Your task to perform on an android device: Check the weather Image 0: 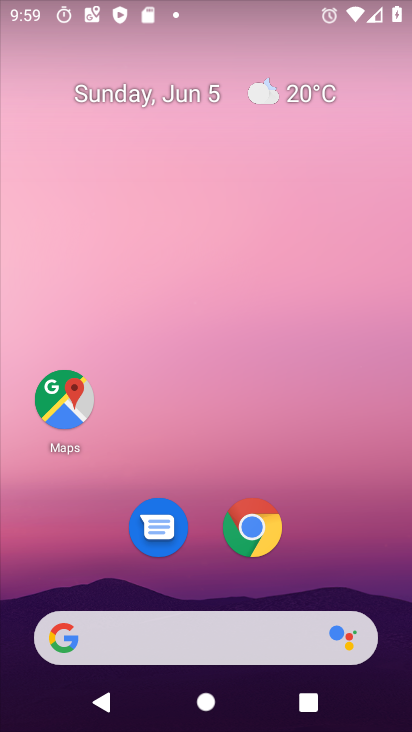
Step 0: drag from (376, 333) to (355, 239)
Your task to perform on an android device: Check the weather Image 1: 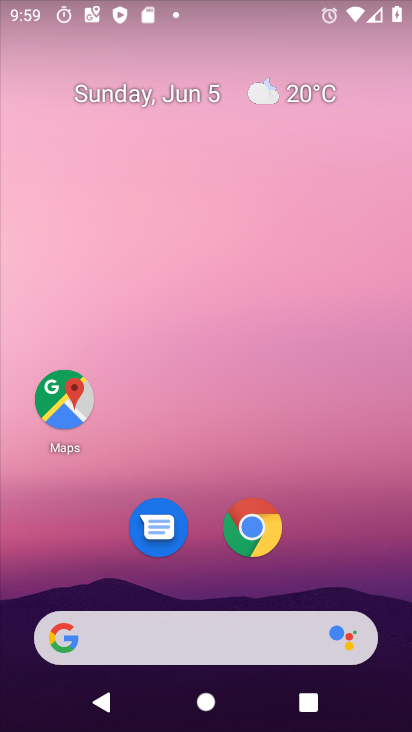
Step 1: drag from (325, 595) to (238, 76)
Your task to perform on an android device: Check the weather Image 2: 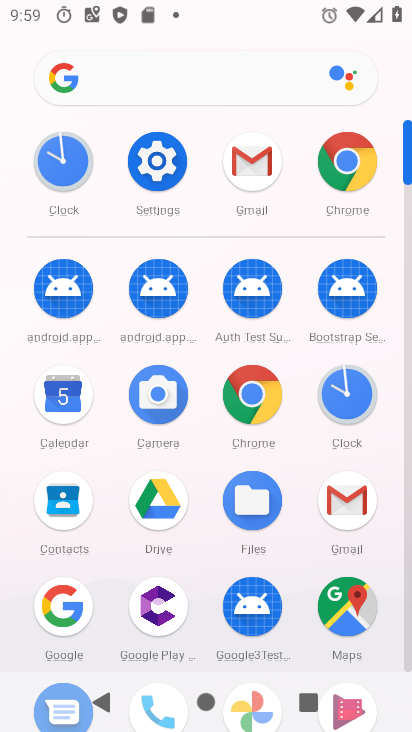
Step 2: click (303, 86)
Your task to perform on an android device: Check the weather Image 3: 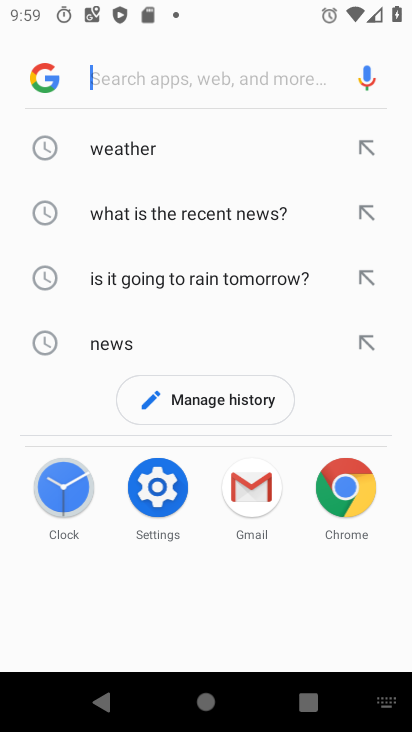
Step 3: press home button
Your task to perform on an android device: Check the weather Image 4: 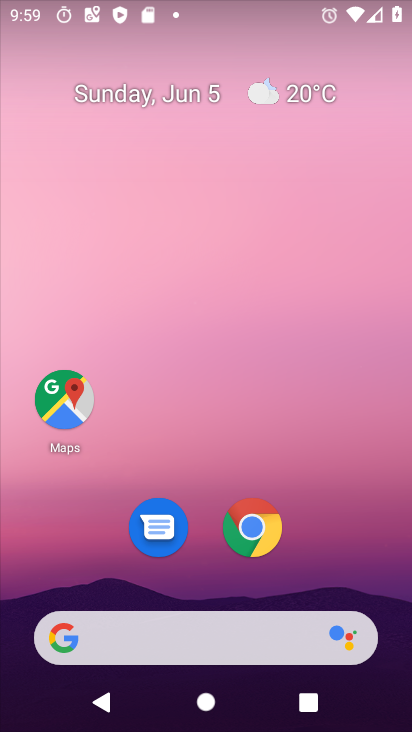
Step 4: click (307, 97)
Your task to perform on an android device: Check the weather Image 5: 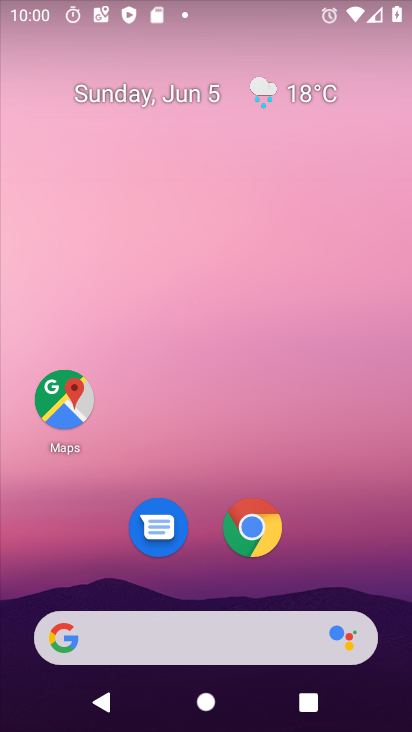
Step 5: click (303, 99)
Your task to perform on an android device: Check the weather Image 6: 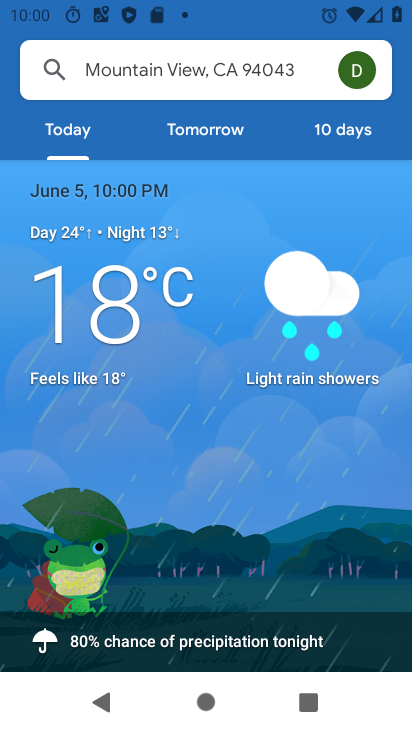
Step 6: task complete